Your task to perform on an android device: Go to settings Image 0: 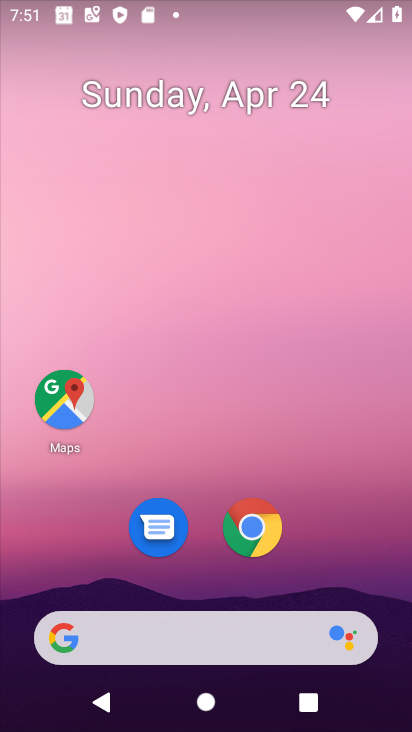
Step 0: drag from (394, 617) to (290, 163)
Your task to perform on an android device: Go to settings Image 1: 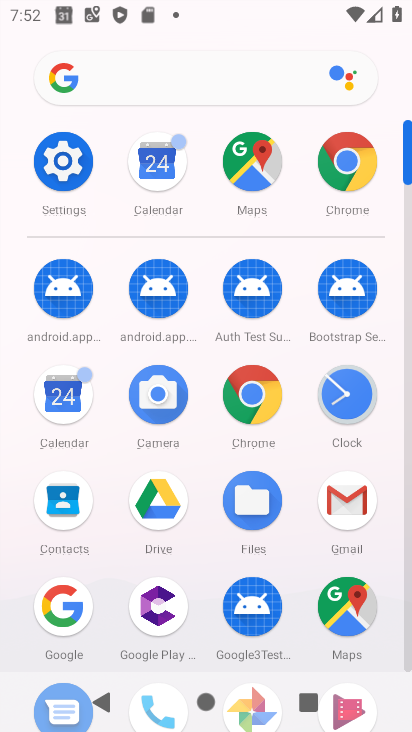
Step 1: click (58, 143)
Your task to perform on an android device: Go to settings Image 2: 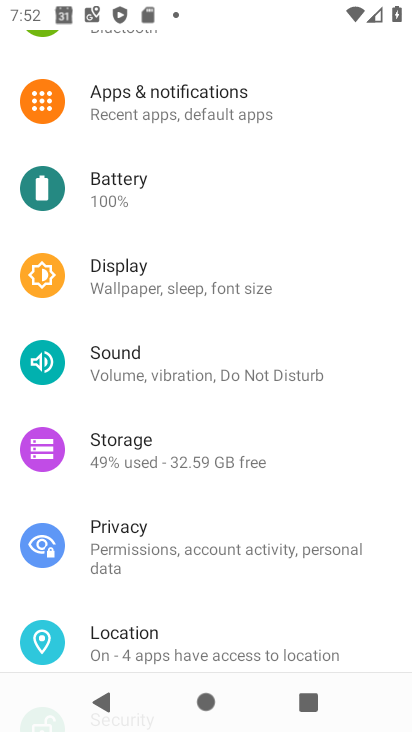
Step 2: task complete